Your task to perform on an android device: Play the latest video from the Huffington Post Image 0: 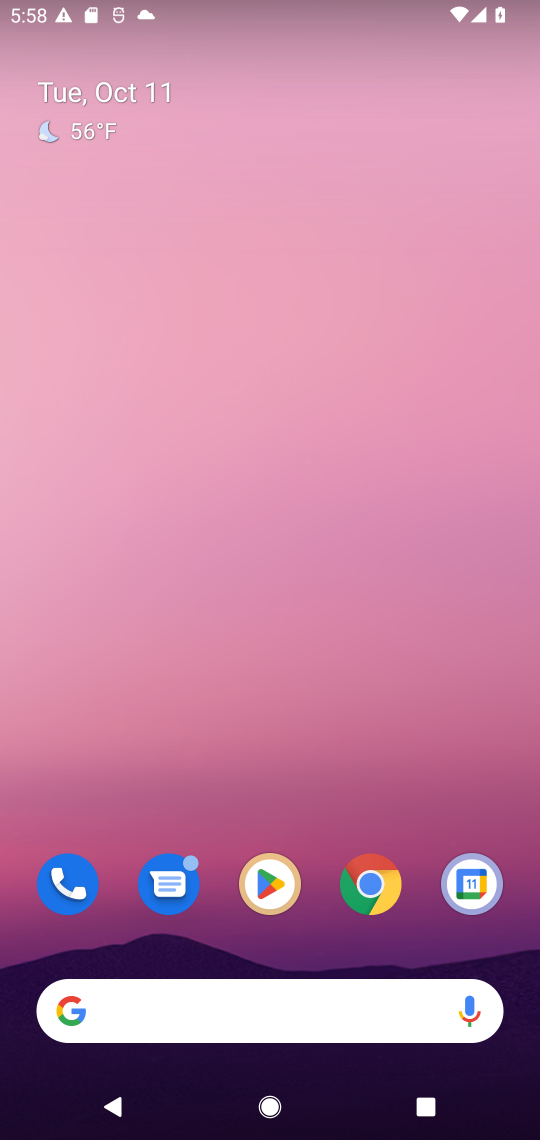
Step 0: drag from (317, 968) to (369, 56)
Your task to perform on an android device: Play the latest video from the Huffington Post Image 1: 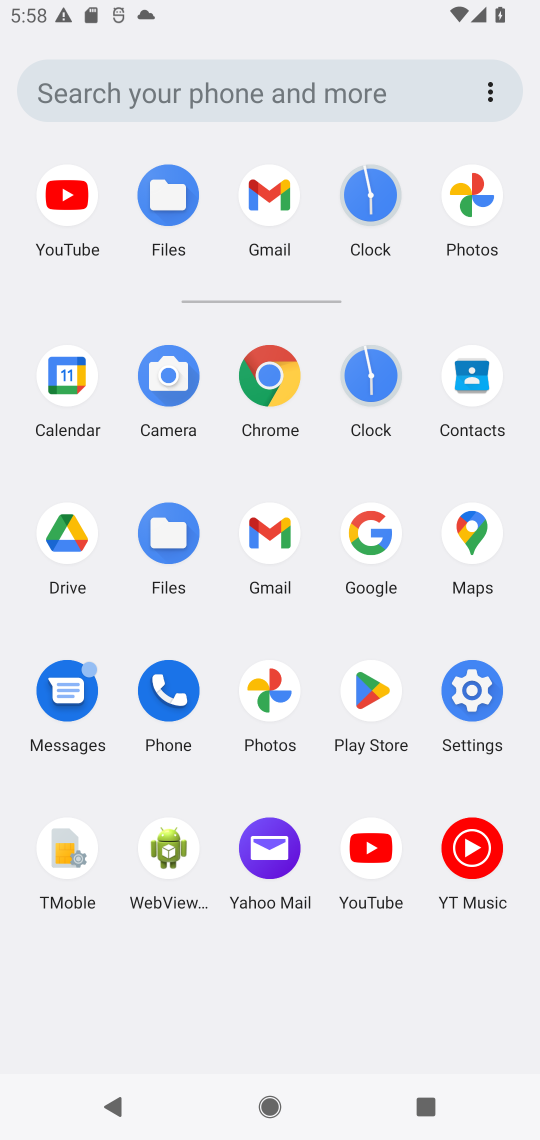
Step 1: click (274, 376)
Your task to perform on an android device: Play the latest video from the Huffington Post Image 2: 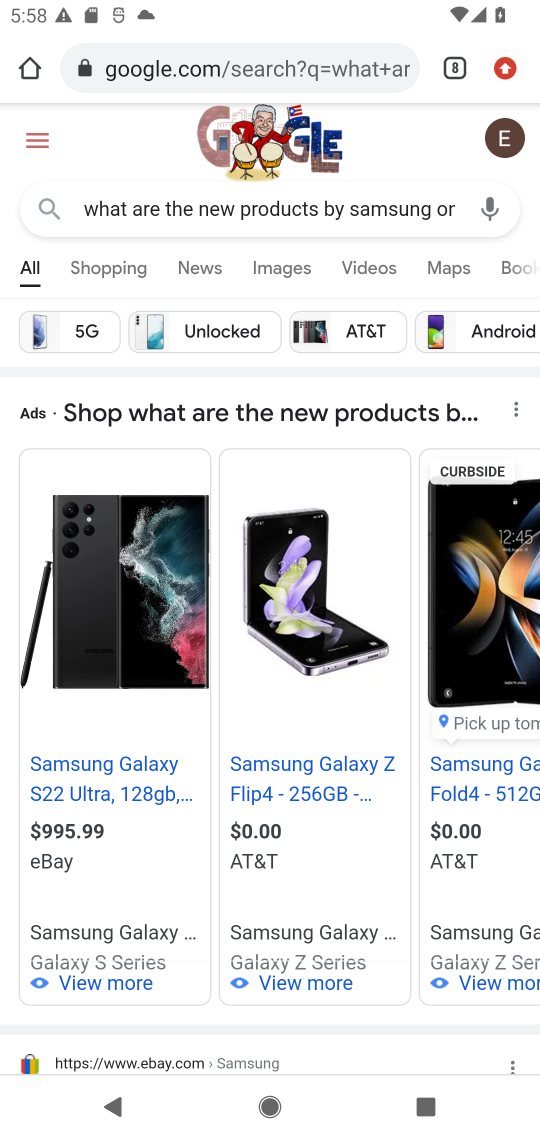
Step 2: click (370, 210)
Your task to perform on an android device: Play the latest video from the Huffington Post Image 3: 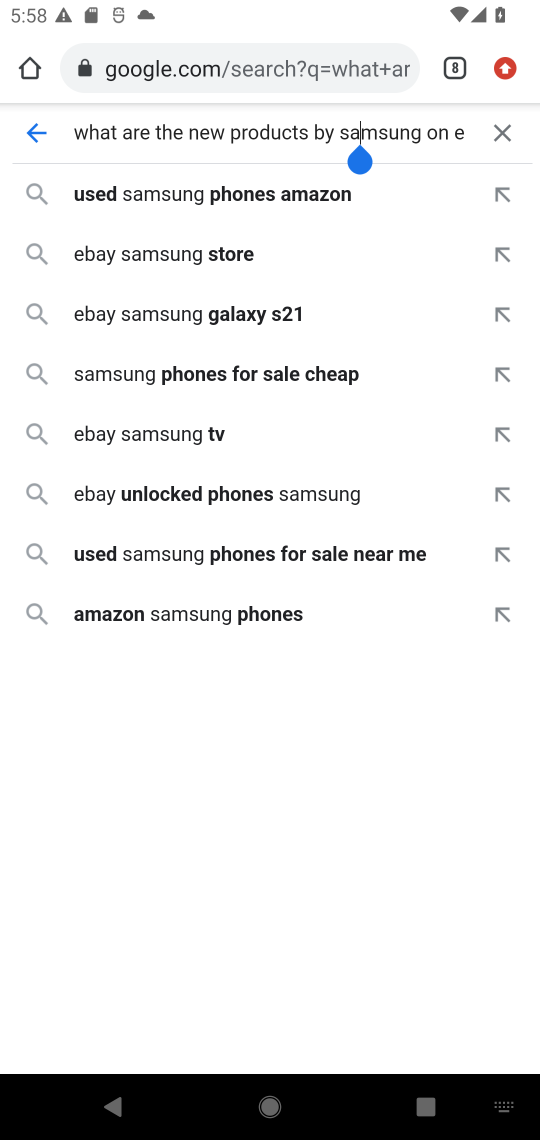
Step 3: click (496, 135)
Your task to perform on an android device: Play the latest video from the Huffington Post Image 4: 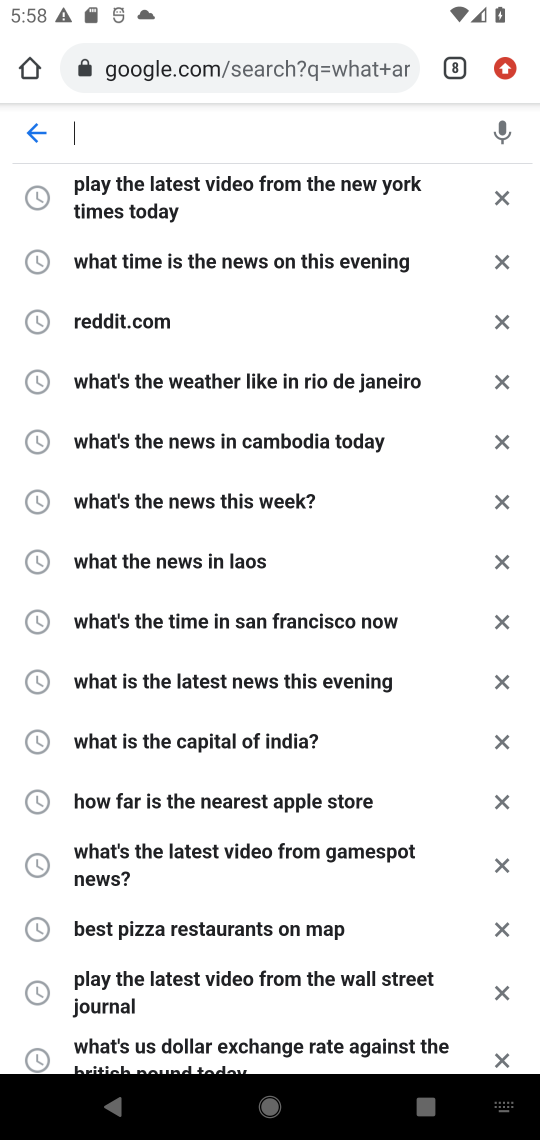
Step 4: type "Play the latest video from the Huffington Post"
Your task to perform on an android device: Play the latest video from the Huffington Post Image 5: 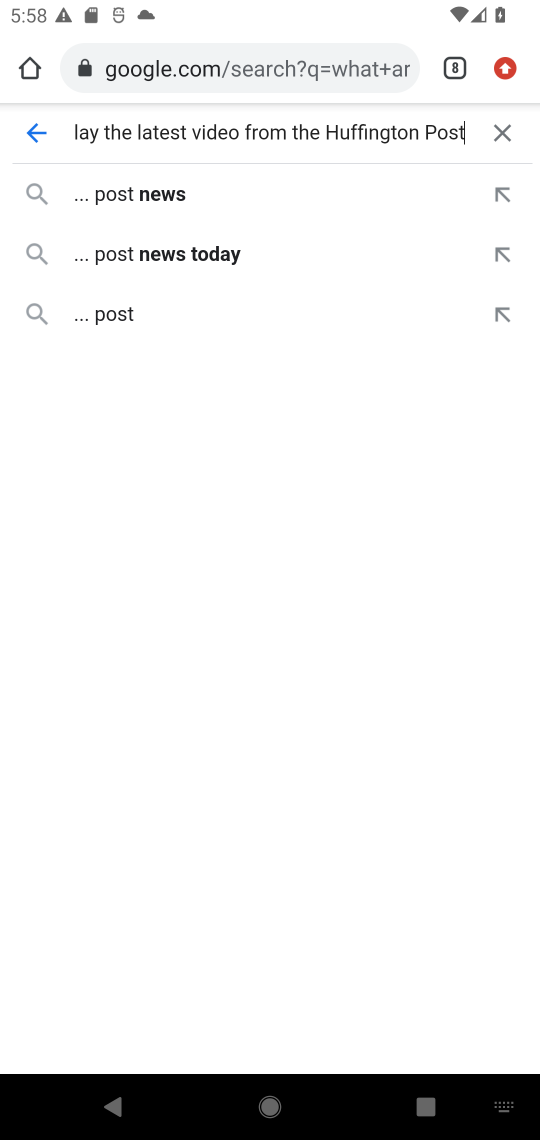
Step 5: click (156, 195)
Your task to perform on an android device: Play the latest video from the Huffington Post Image 6: 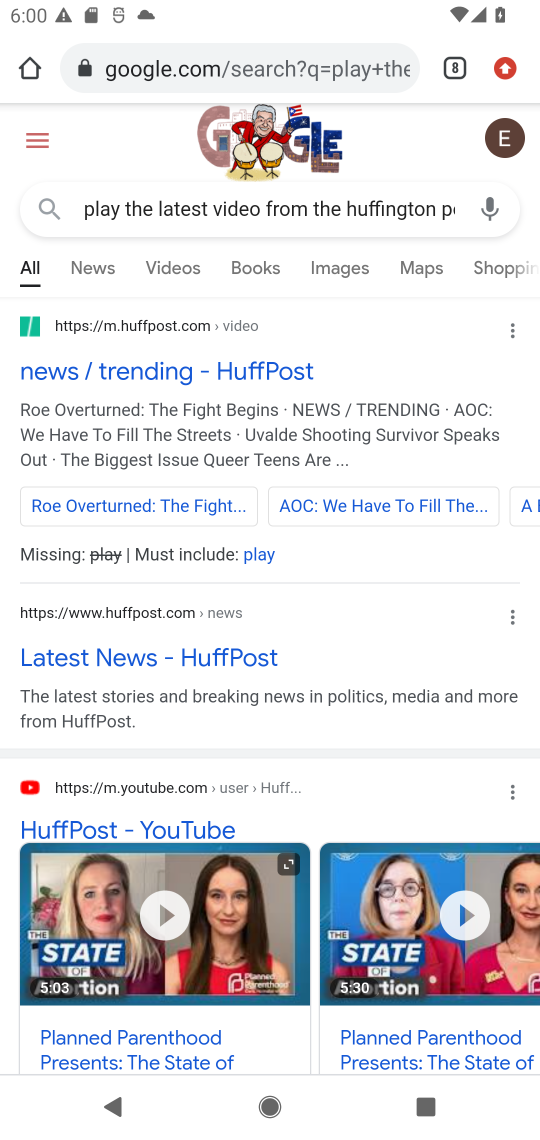
Step 6: drag from (276, 776) to (295, 381)
Your task to perform on an android device: Play the latest video from the Huffington Post Image 7: 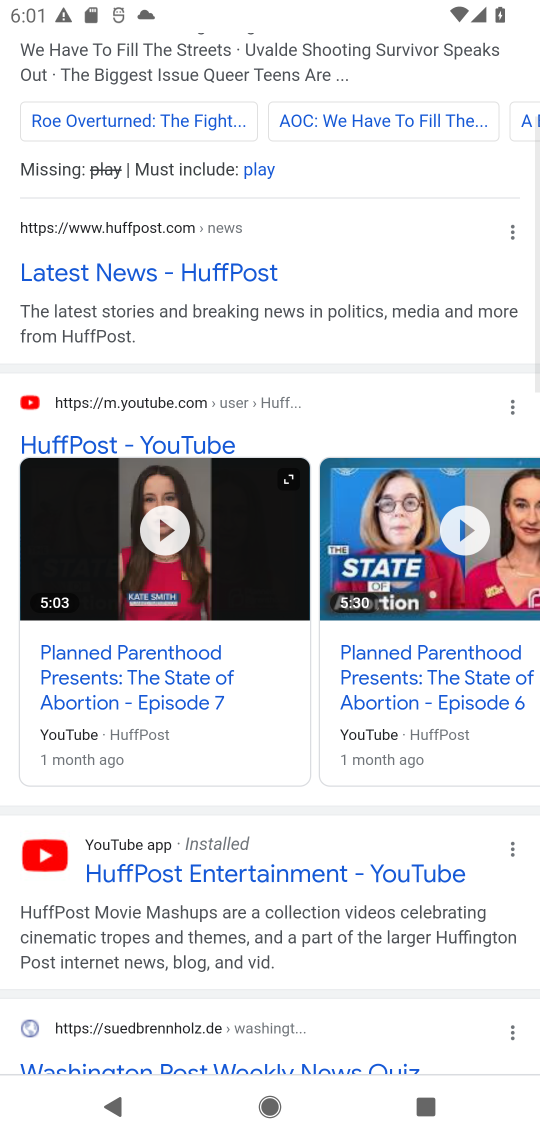
Step 7: click (171, 668)
Your task to perform on an android device: Play the latest video from the Huffington Post Image 8: 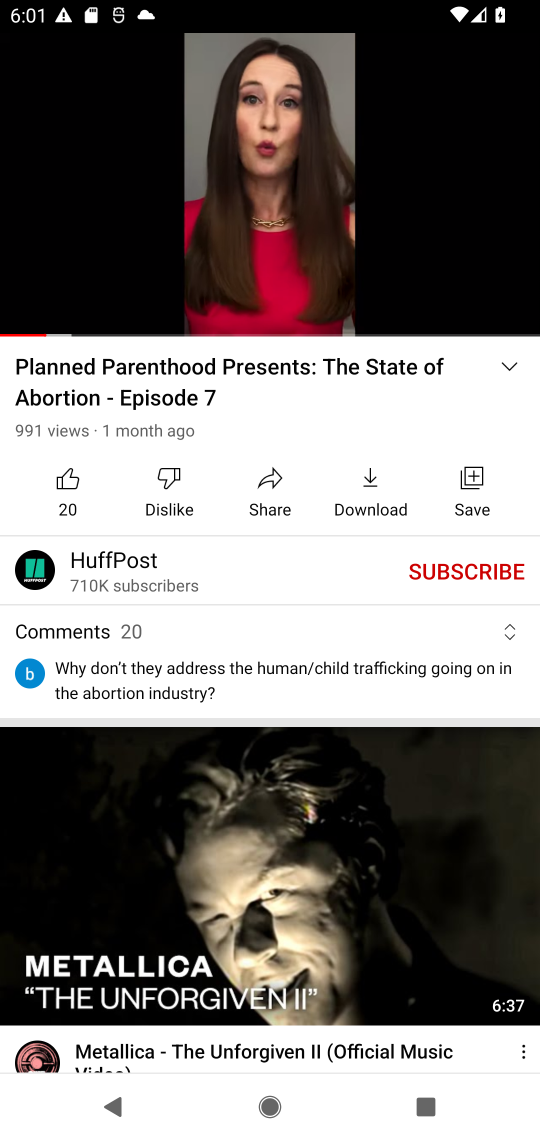
Step 8: task complete